Your task to perform on an android device: change the clock style Image 0: 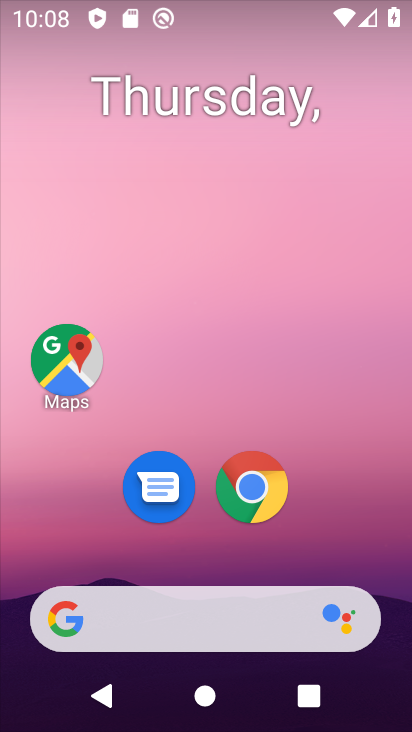
Step 0: drag from (345, 538) to (158, 213)
Your task to perform on an android device: change the clock style Image 1: 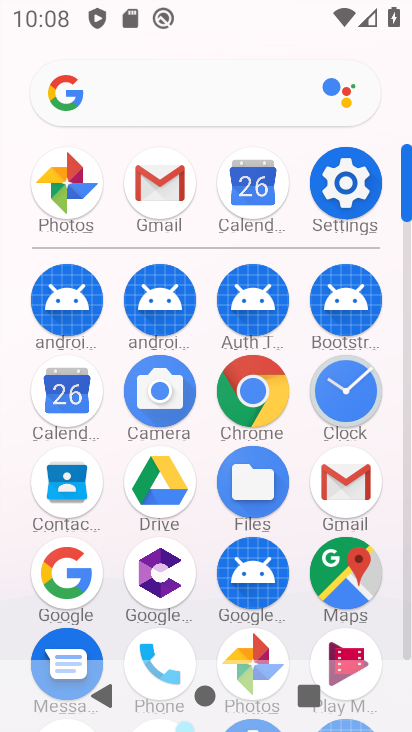
Step 1: click (345, 393)
Your task to perform on an android device: change the clock style Image 2: 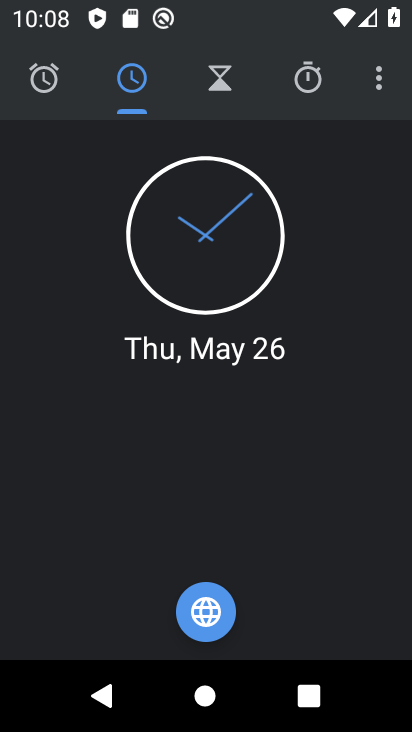
Step 2: click (383, 90)
Your task to perform on an android device: change the clock style Image 3: 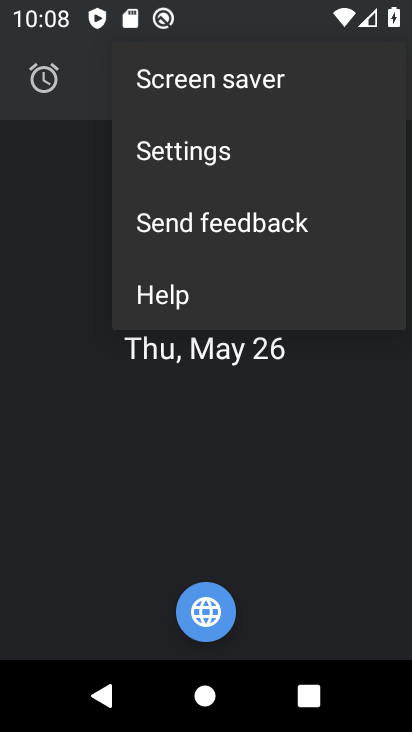
Step 3: click (212, 146)
Your task to perform on an android device: change the clock style Image 4: 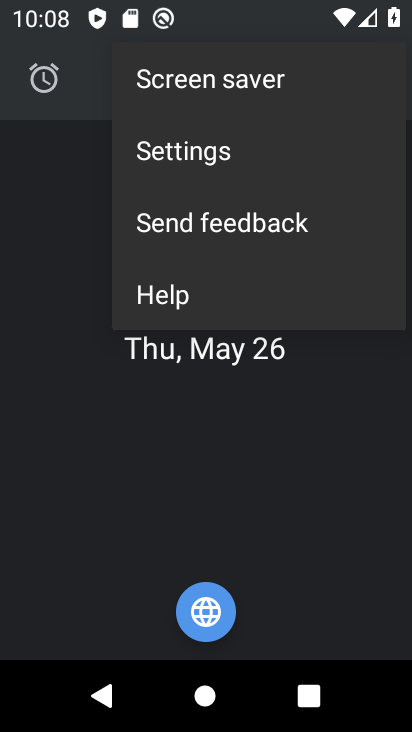
Step 4: click (212, 146)
Your task to perform on an android device: change the clock style Image 5: 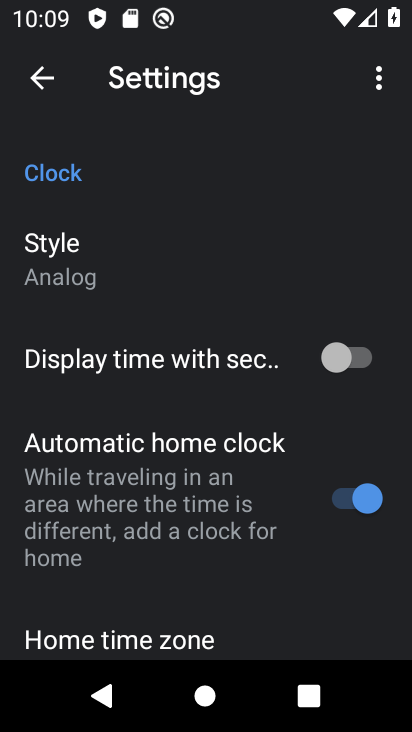
Step 5: click (60, 268)
Your task to perform on an android device: change the clock style Image 6: 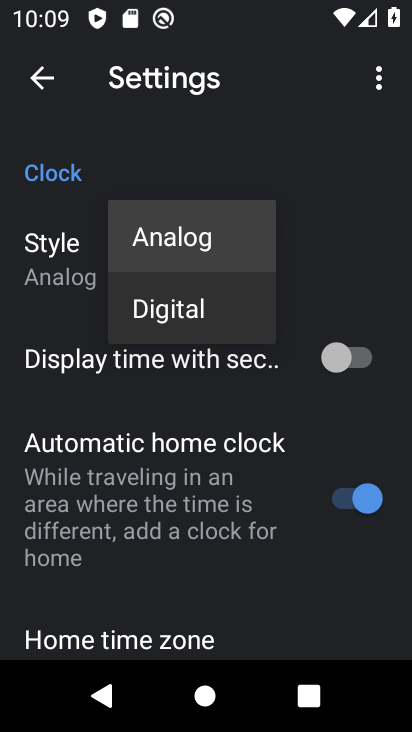
Step 6: click (163, 304)
Your task to perform on an android device: change the clock style Image 7: 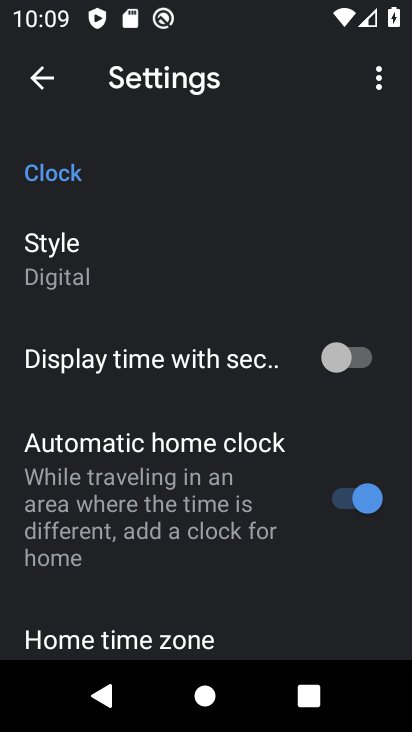
Step 7: task complete